Your task to perform on an android device: change the clock display to analog Image 0: 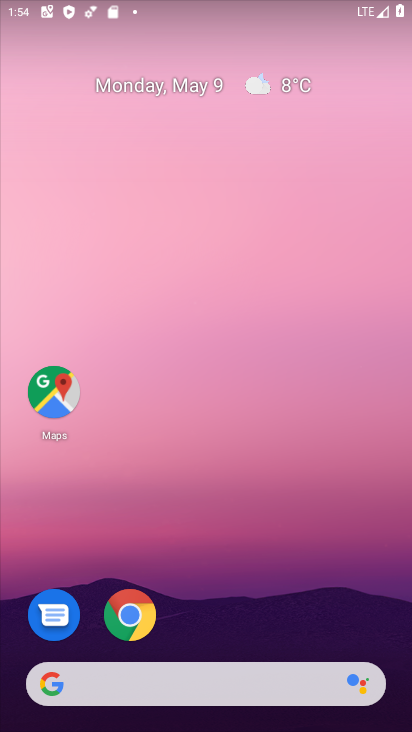
Step 0: drag from (372, 630) to (239, 42)
Your task to perform on an android device: change the clock display to analog Image 1: 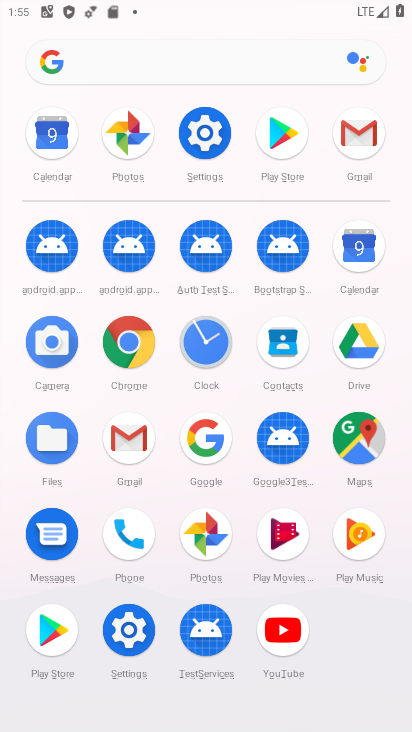
Step 1: click (205, 340)
Your task to perform on an android device: change the clock display to analog Image 2: 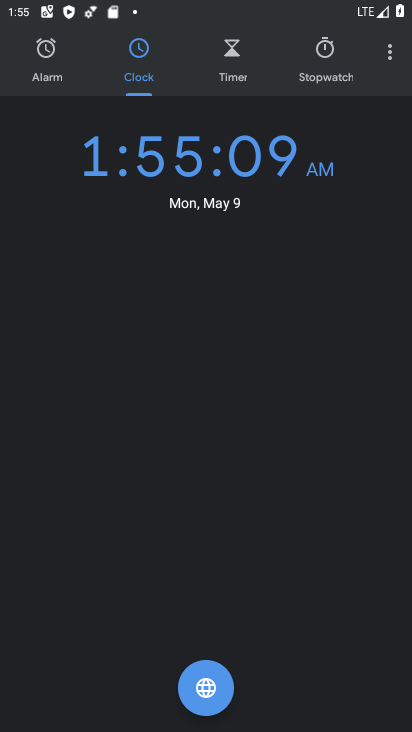
Step 2: click (388, 58)
Your task to perform on an android device: change the clock display to analog Image 3: 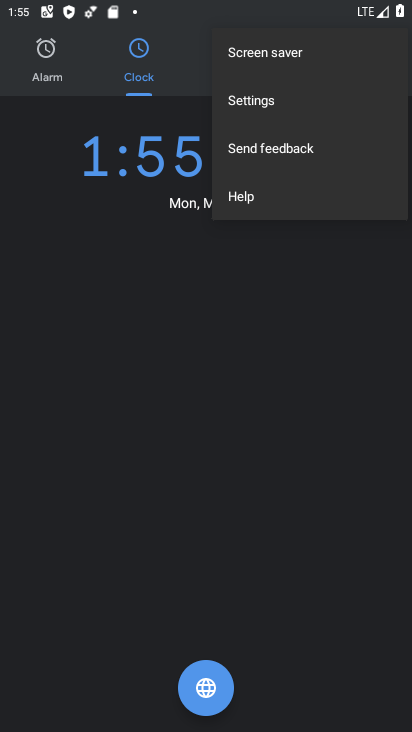
Step 3: click (250, 99)
Your task to perform on an android device: change the clock display to analog Image 4: 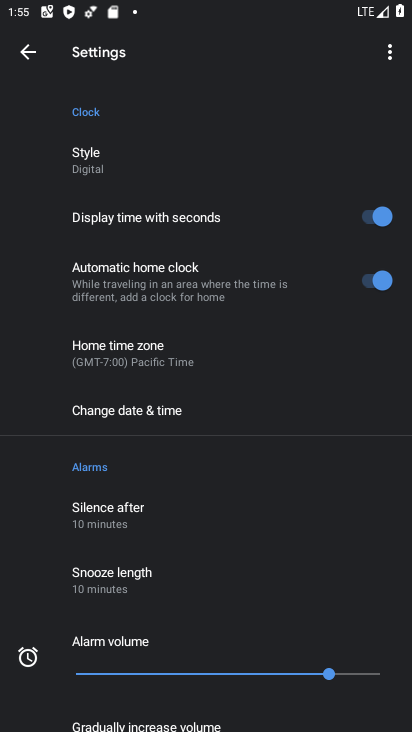
Step 4: click (71, 154)
Your task to perform on an android device: change the clock display to analog Image 5: 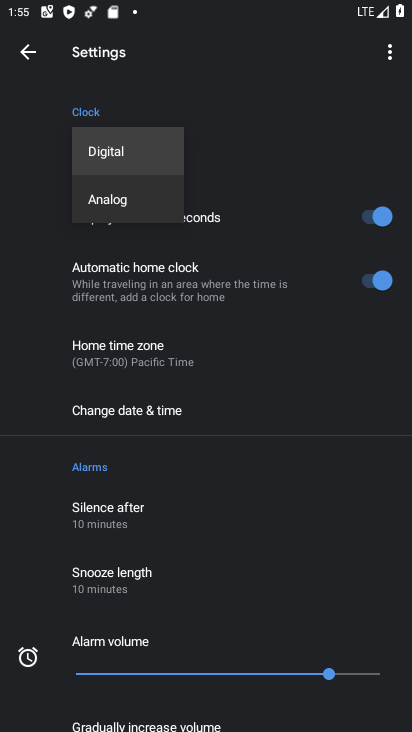
Step 5: click (108, 203)
Your task to perform on an android device: change the clock display to analog Image 6: 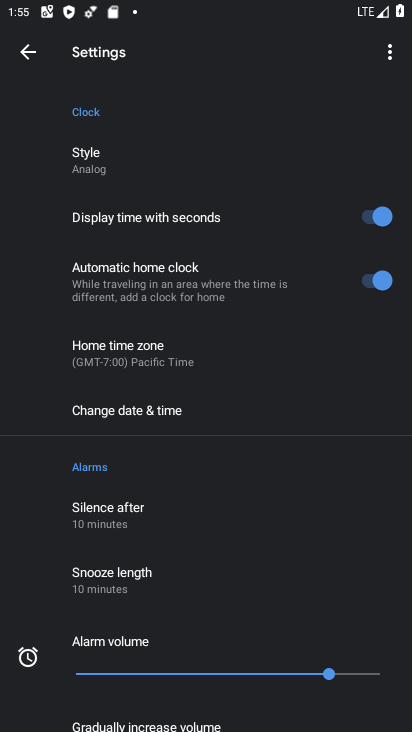
Step 6: task complete